Your task to perform on an android device: Open Chrome and go to settings Image 0: 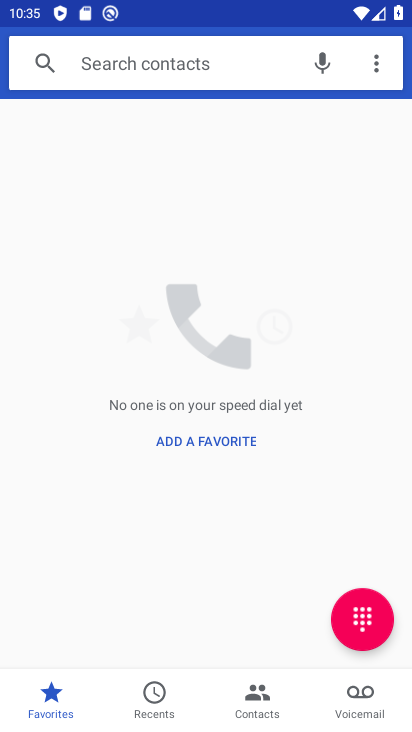
Step 0: press home button
Your task to perform on an android device: Open Chrome and go to settings Image 1: 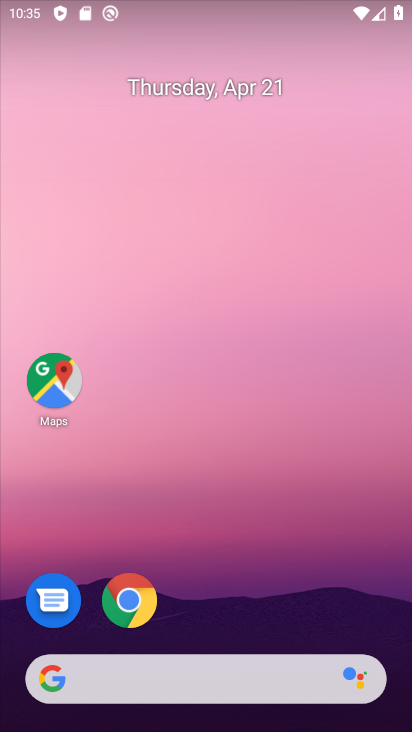
Step 1: drag from (255, 553) to (273, 88)
Your task to perform on an android device: Open Chrome and go to settings Image 2: 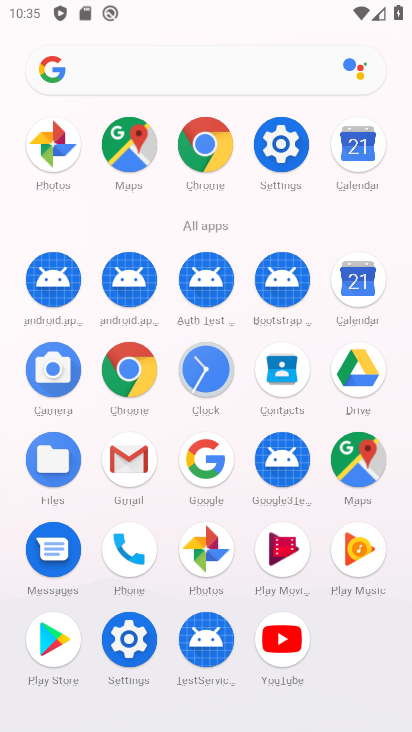
Step 2: click (204, 168)
Your task to perform on an android device: Open Chrome and go to settings Image 3: 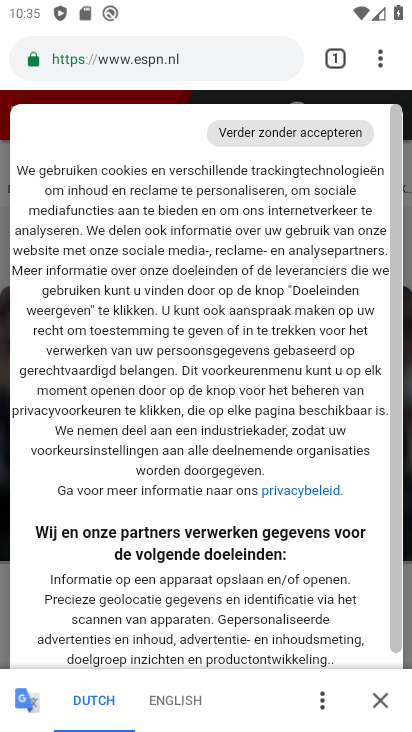
Step 3: task complete